Your task to perform on an android device: see creations saved in the google photos Image 0: 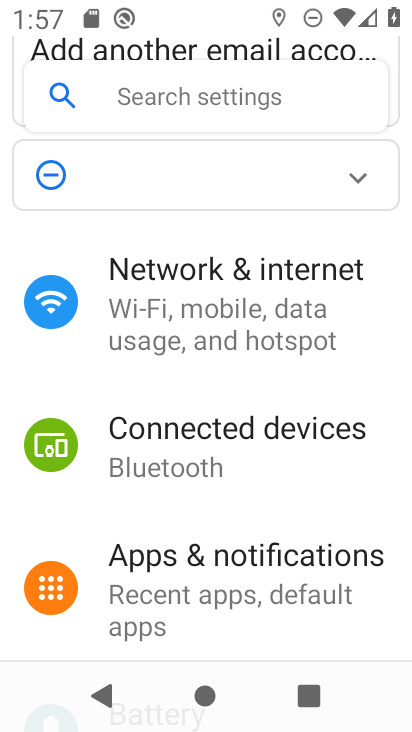
Step 0: press home button
Your task to perform on an android device: see creations saved in the google photos Image 1: 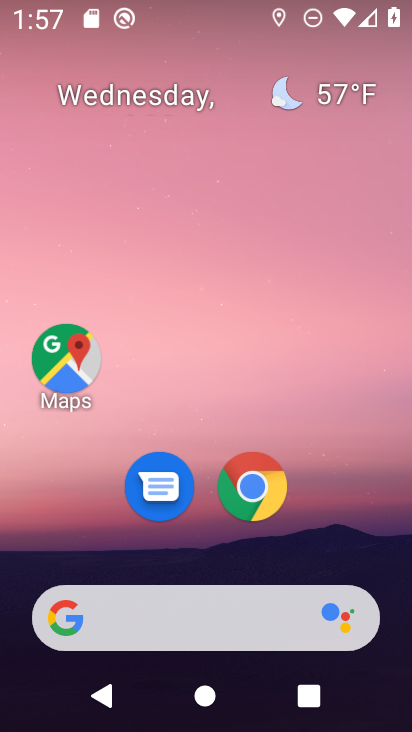
Step 1: drag from (384, 551) to (384, 70)
Your task to perform on an android device: see creations saved in the google photos Image 2: 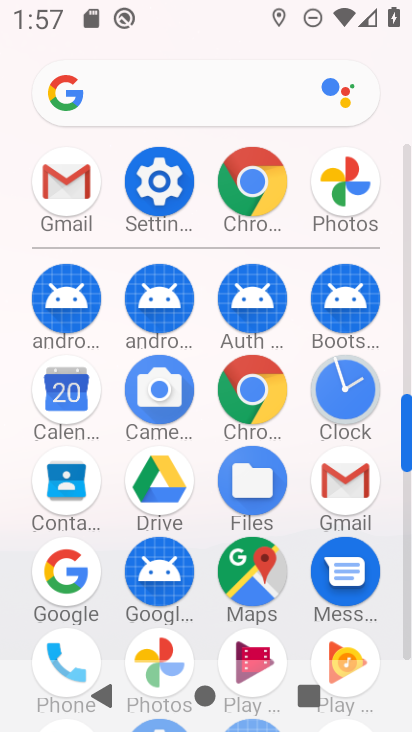
Step 2: click (356, 200)
Your task to perform on an android device: see creations saved in the google photos Image 3: 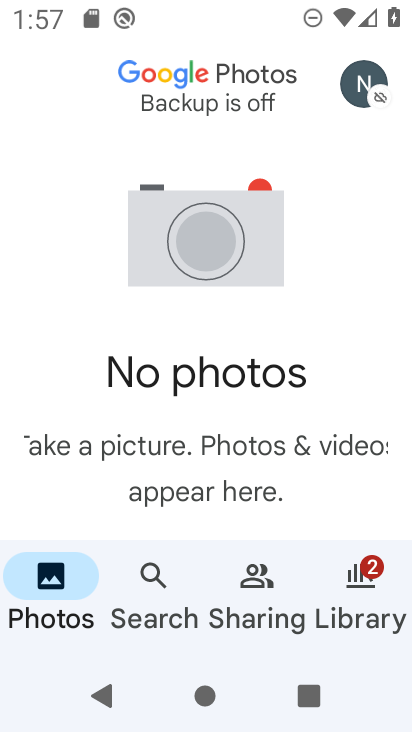
Step 3: click (152, 584)
Your task to perform on an android device: see creations saved in the google photos Image 4: 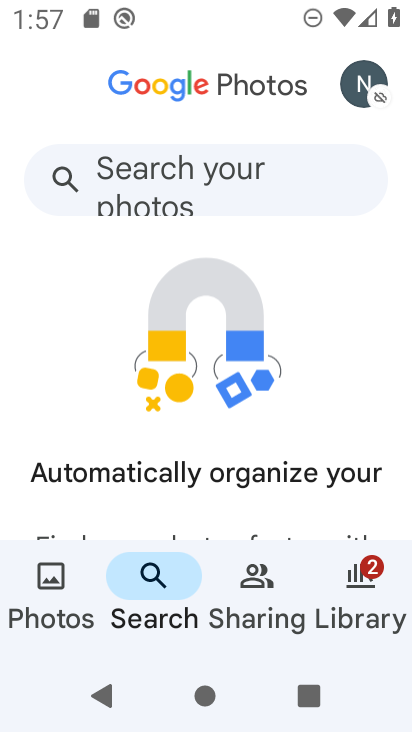
Step 4: drag from (288, 463) to (294, 336)
Your task to perform on an android device: see creations saved in the google photos Image 5: 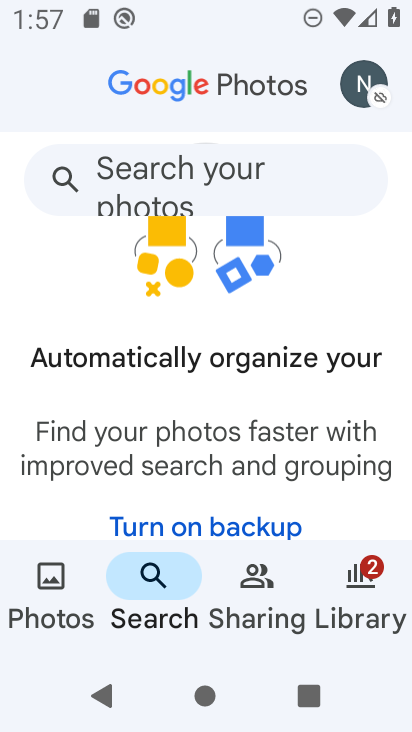
Step 5: drag from (278, 461) to (292, 240)
Your task to perform on an android device: see creations saved in the google photos Image 6: 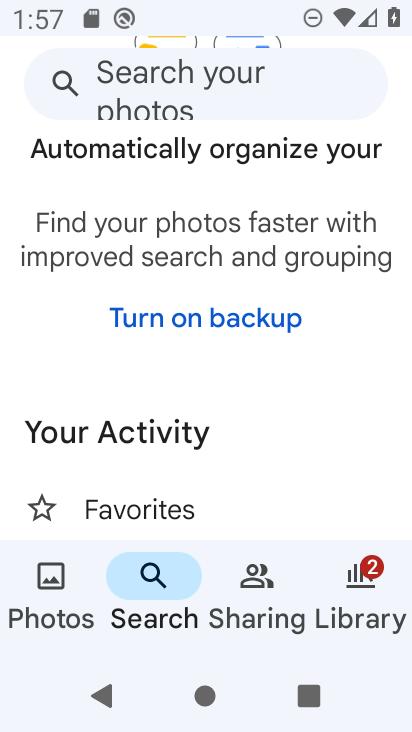
Step 6: drag from (298, 446) to (320, 305)
Your task to perform on an android device: see creations saved in the google photos Image 7: 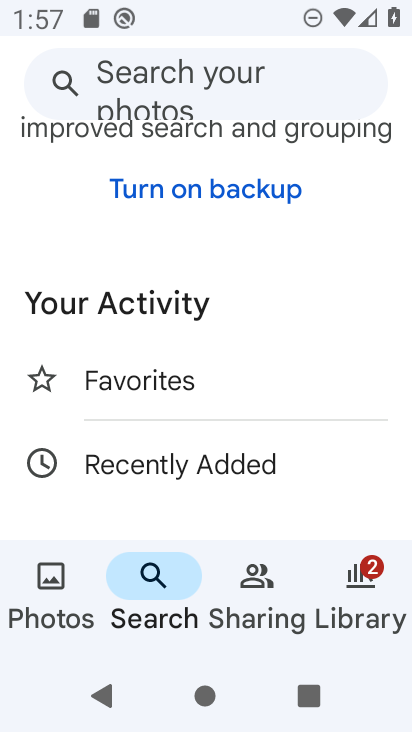
Step 7: drag from (317, 485) to (322, 265)
Your task to perform on an android device: see creations saved in the google photos Image 8: 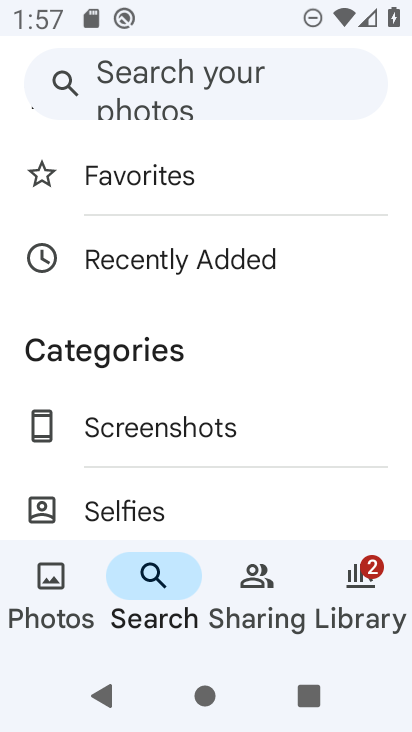
Step 8: drag from (300, 442) to (323, 207)
Your task to perform on an android device: see creations saved in the google photos Image 9: 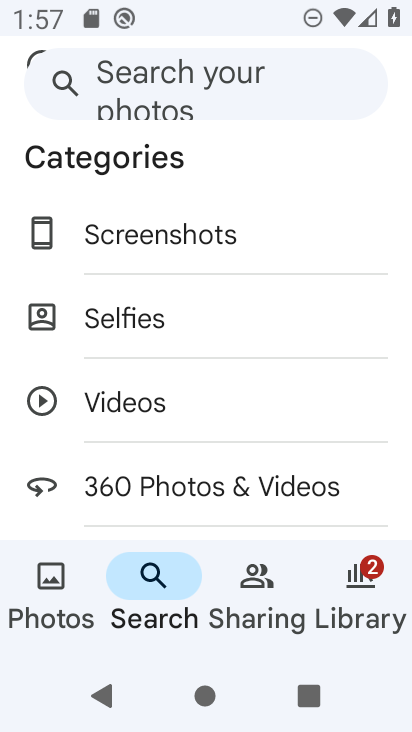
Step 9: drag from (339, 444) to (339, 211)
Your task to perform on an android device: see creations saved in the google photos Image 10: 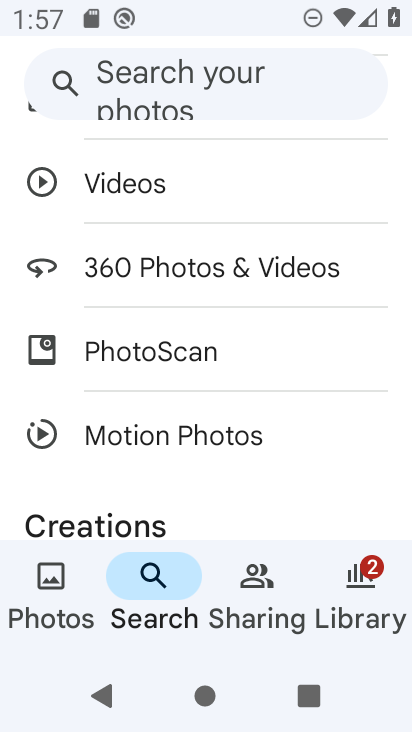
Step 10: drag from (318, 481) to (329, 279)
Your task to perform on an android device: see creations saved in the google photos Image 11: 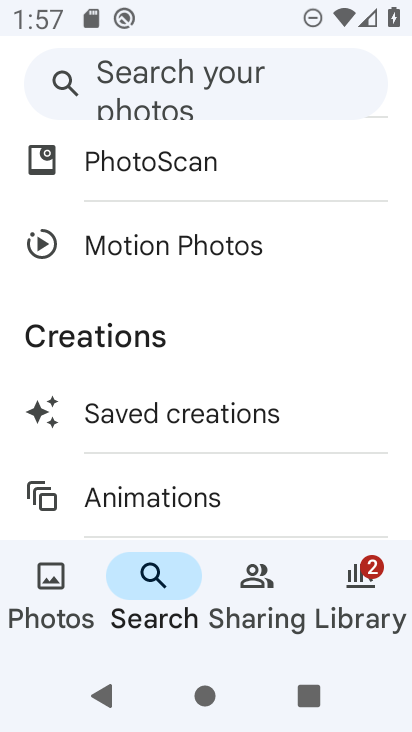
Step 11: click (250, 436)
Your task to perform on an android device: see creations saved in the google photos Image 12: 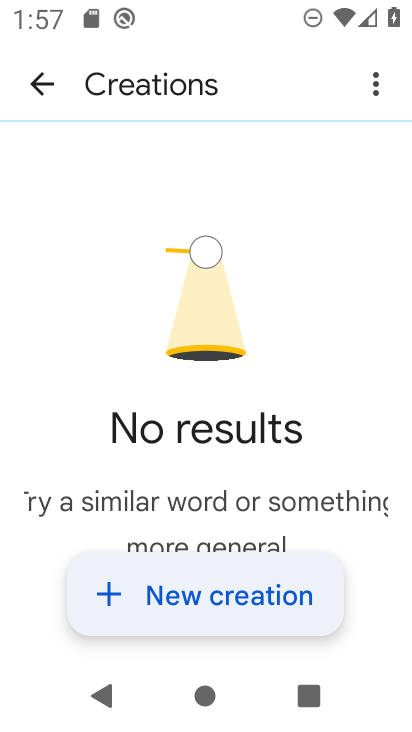
Step 12: task complete